Your task to perform on an android device: allow notifications from all sites in the chrome app Image 0: 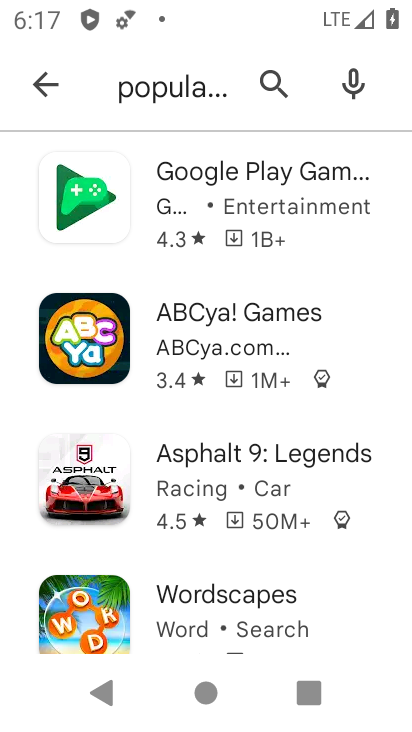
Step 0: press home button
Your task to perform on an android device: allow notifications from all sites in the chrome app Image 1: 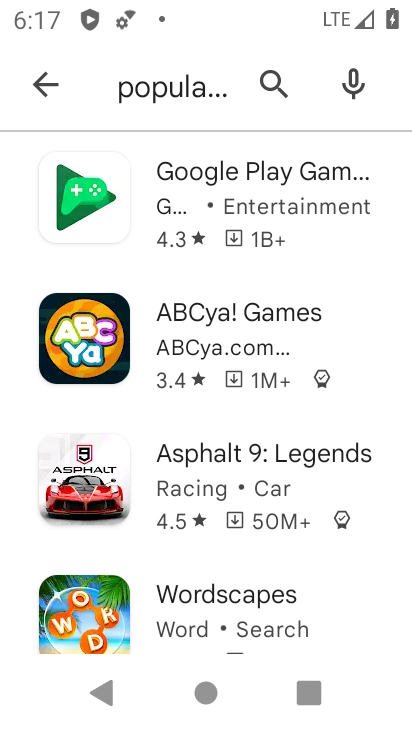
Step 1: press home button
Your task to perform on an android device: allow notifications from all sites in the chrome app Image 2: 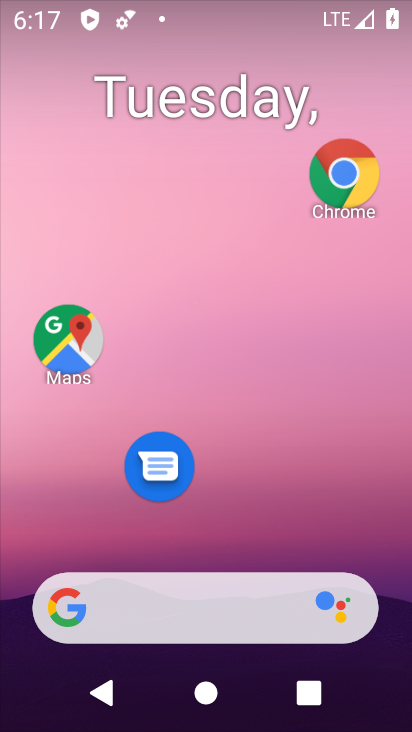
Step 2: click (331, 195)
Your task to perform on an android device: allow notifications from all sites in the chrome app Image 3: 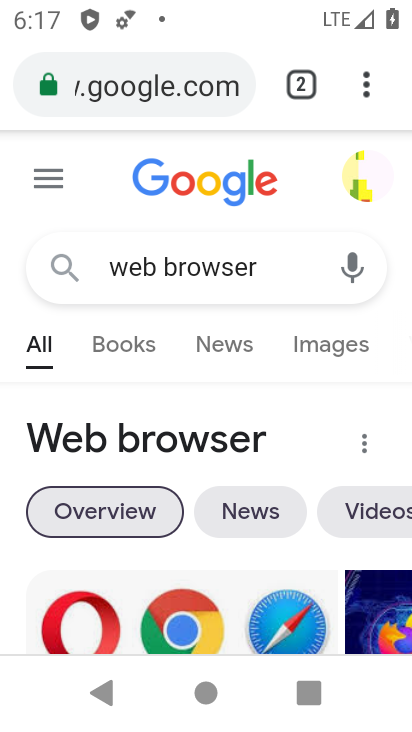
Step 3: drag from (373, 69) to (122, 523)
Your task to perform on an android device: allow notifications from all sites in the chrome app Image 4: 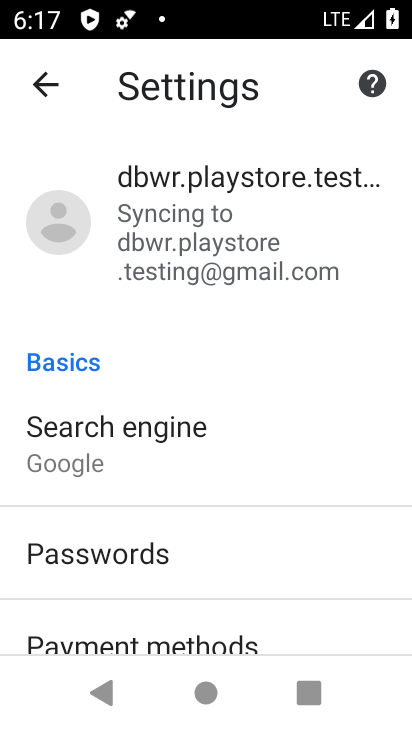
Step 4: drag from (190, 603) to (279, 34)
Your task to perform on an android device: allow notifications from all sites in the chrome app Image 5: 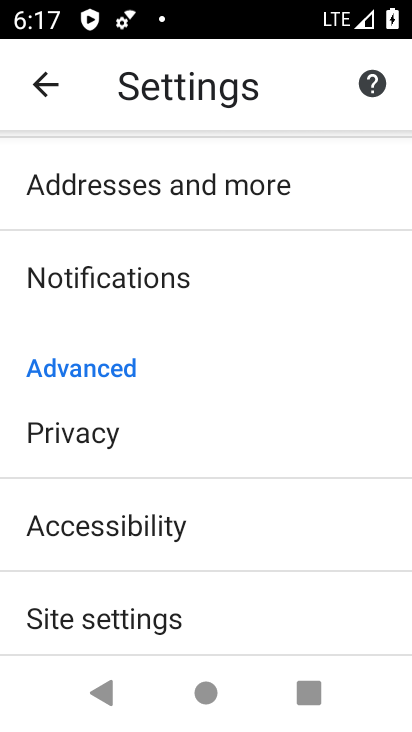
Step 5: drag from (242, 611) to (261, 360)
Your task to perform on an android device: allow notifications from all sites in the chrome app Image 6: 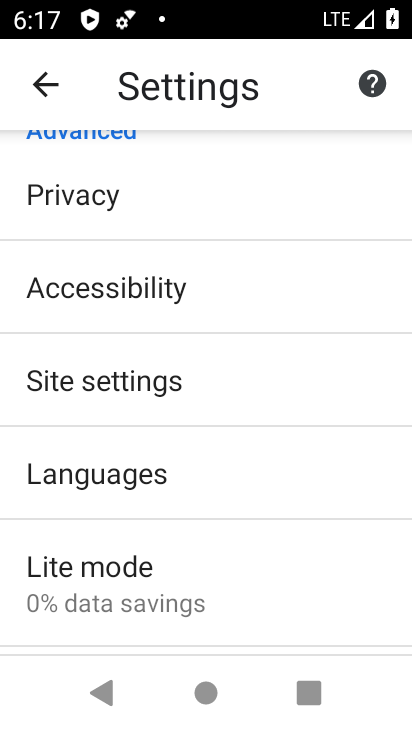
Step 6: click (125, 408)
Your task to perform on an android device: allow notifications from all sites in the chrome app Image 7: 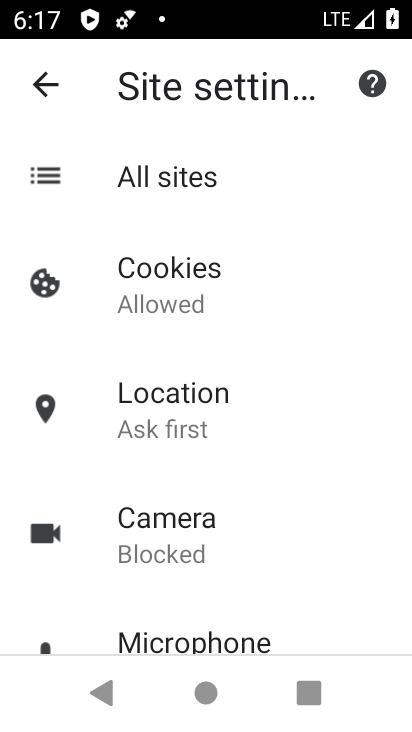
Step 7: click (137, 208)
Your task to perform on an android device: allow notifications from all sites in the chrome app Image 8: 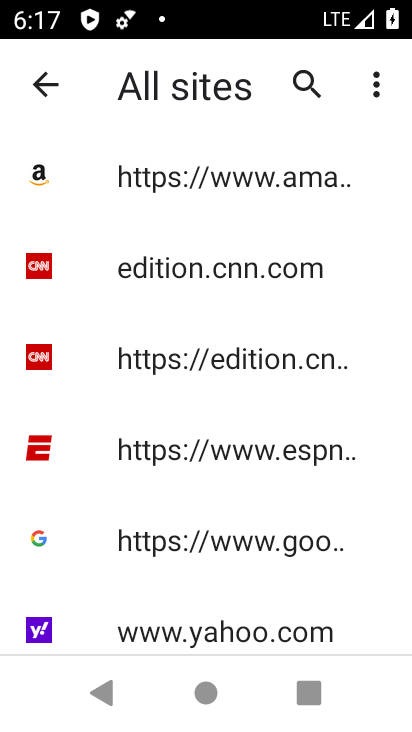
Step 8: click (139, 198)
Your task to perform on an android device: allow notifications from all sites in the chrome app Image 9: 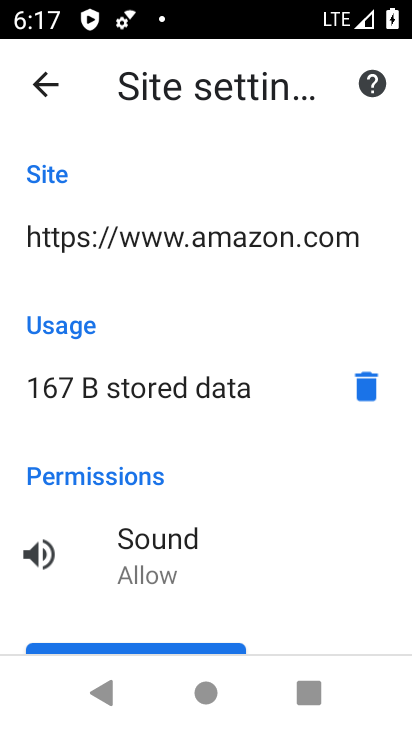
Step 9: click (37, 81)
Your task to perform on an android device: allow notifications from all sites in the chrome app Image 10: 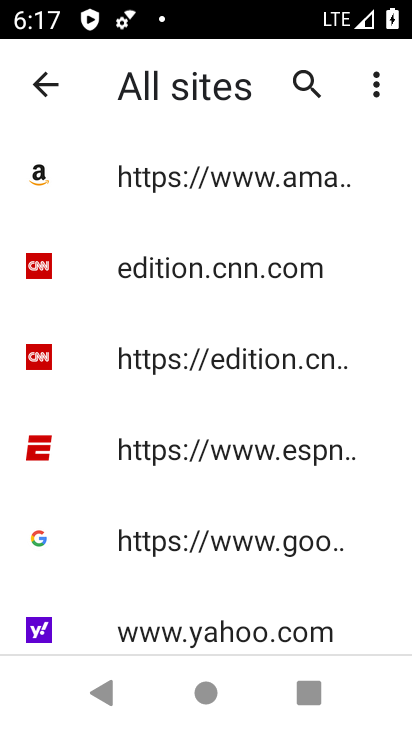
Step 10: click (180, 540)
Your task to perform on an android device: allow notifications from all sites in the chrome app Image 11: 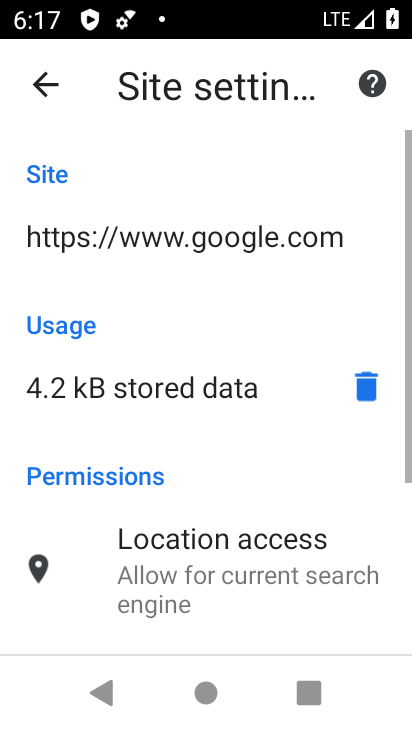
Step 11: drag from (182, 579) to (157, 106)
Your task to perform on an android device: allow notifications from all sites in the chrome app Image 12: 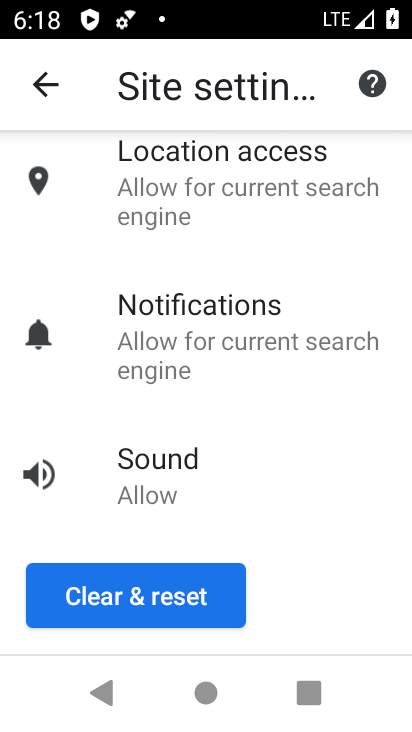
Step 12: click (190, 312)
Your task to perform on an android device: allow notifications from all sites in the chrome app Image 13: 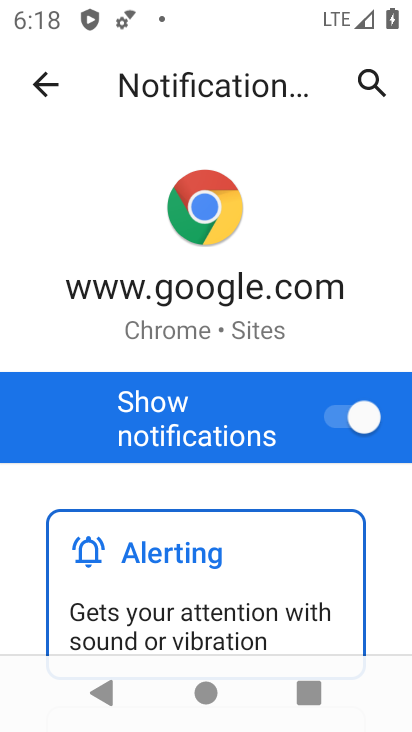
Step 13: drag from (270, 580) to (282, 332)
Your task to perform on an android device: allow notifications from all sites in the chrome app Image 14: 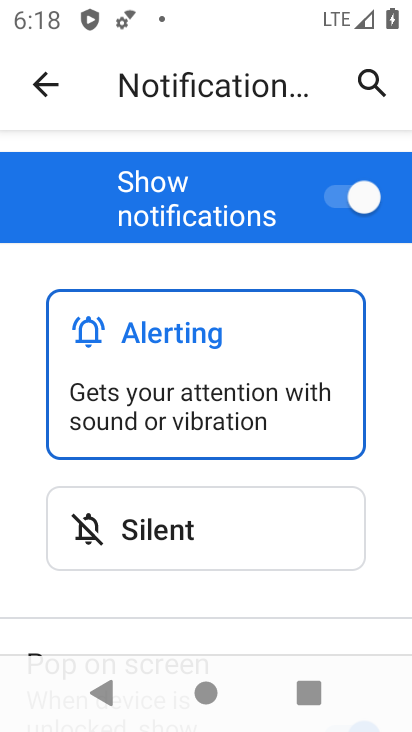
Step 14: drag from (284, 581) to (280, 203)
Your task to perform on an android device: allow notifications from all sites in the chrome app Image 15: 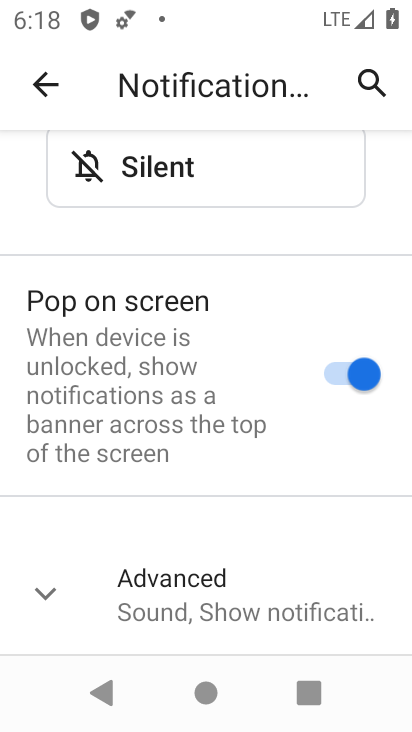
Step 15: drag from (263, 529) to (296, 277)
Your task to perform on an android device: allow notifications from all sites in the chrome app Image 16: 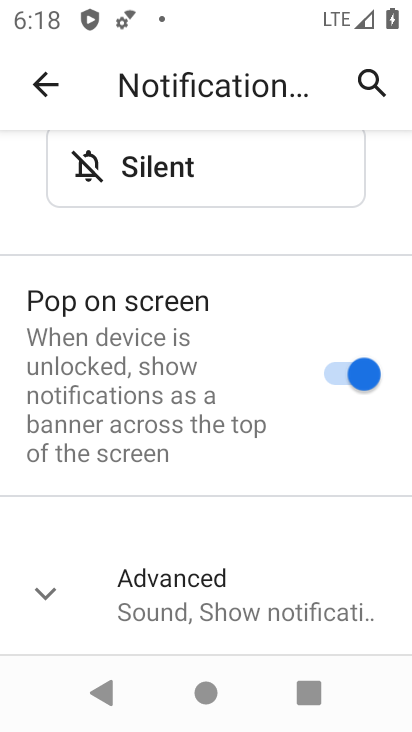
Step 16: click (211, 605)
Your task to perform on an android device: allow notifications from all sites in the chrome app Image 17: 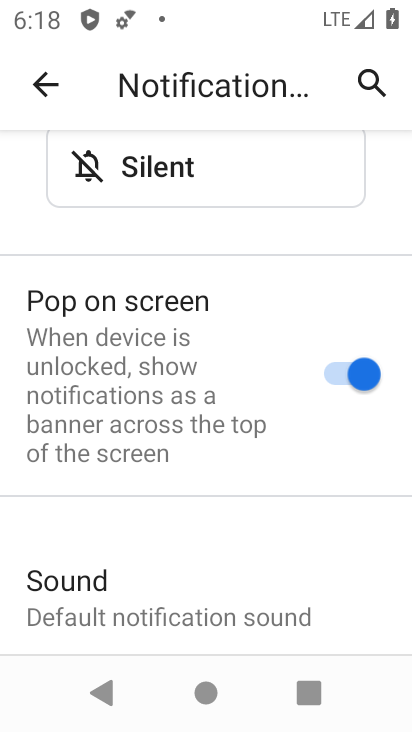
Step 17: task complete